Your task to perform on an android device: empty trash in the gmail app Image 0: 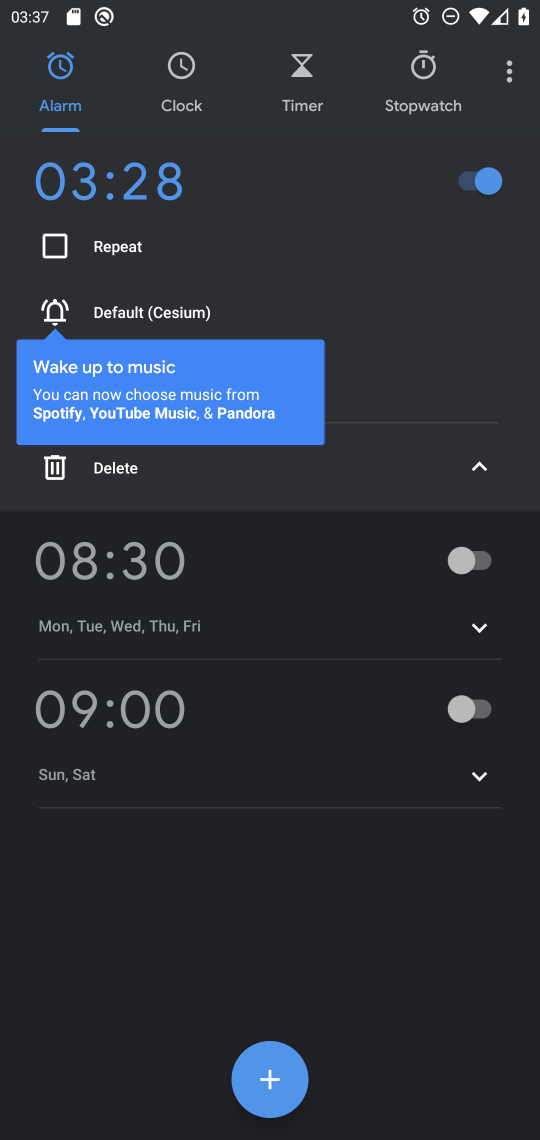
Step 0: press home button
Your task to perform on an android device: empty trash in the gmail app Image 1: 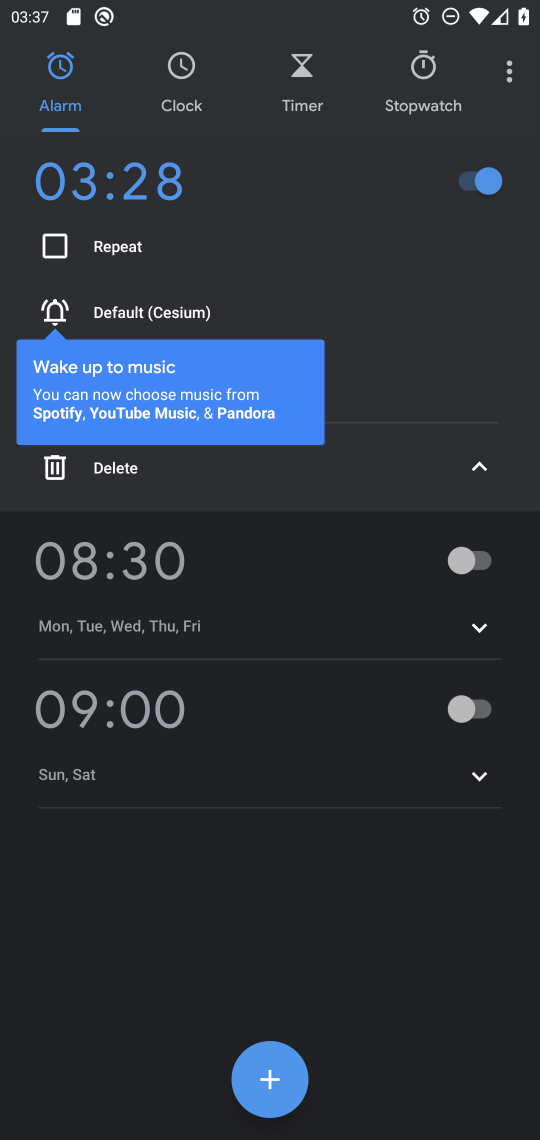
Step 1: press home button
Your task to perform on an android device: empty trash in the gmail app Image 2: 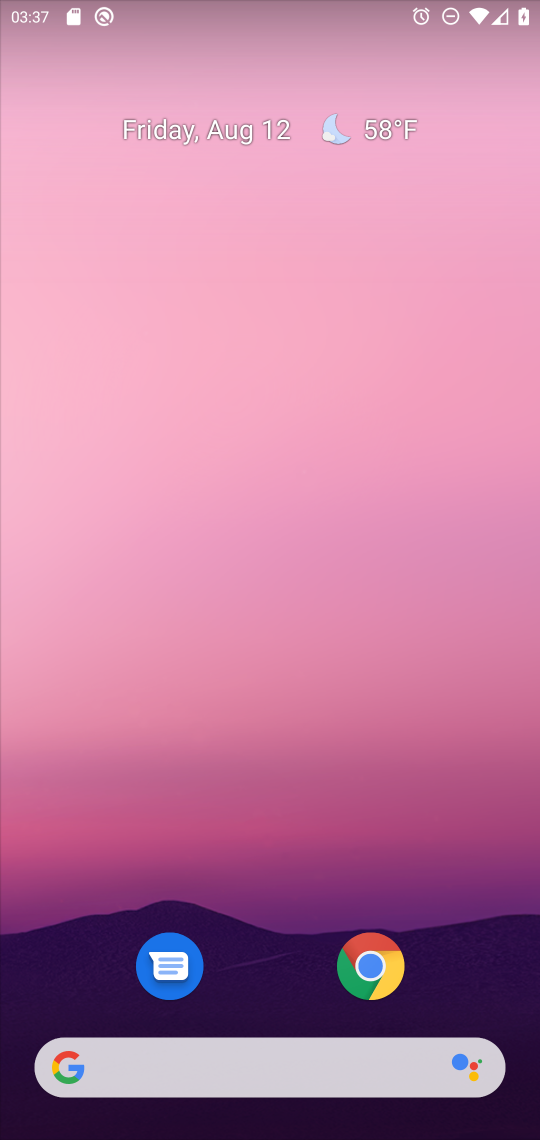
Step 2: drag from (257, 909) to (304, 58)
Your task to perform on an android device: empty trash in the gmail app Image 3: 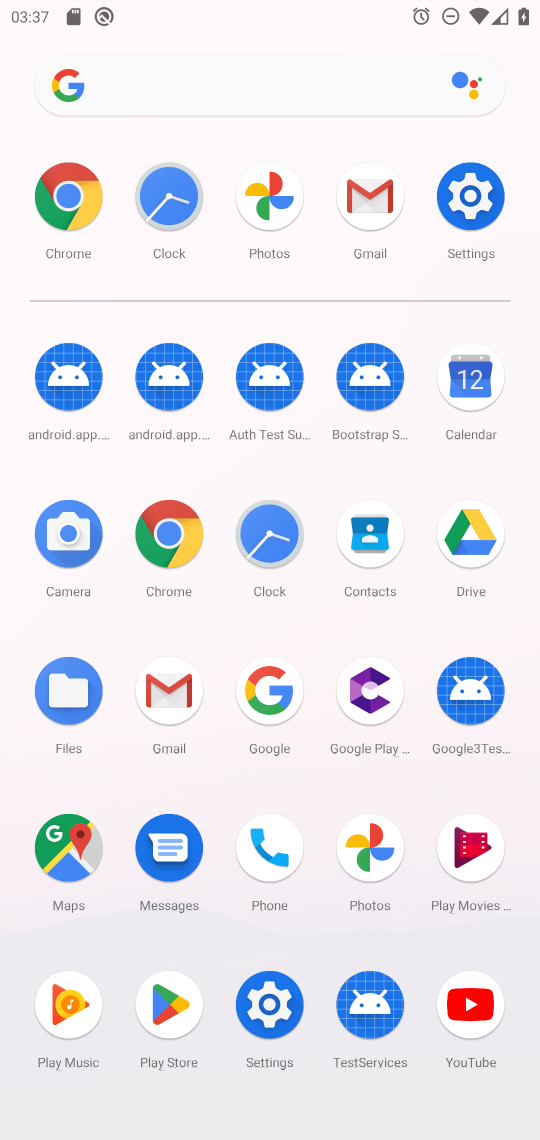
Step 3: click (182, 687)
Your task to perform on an android device: empty trash in the gmail app Image 4: 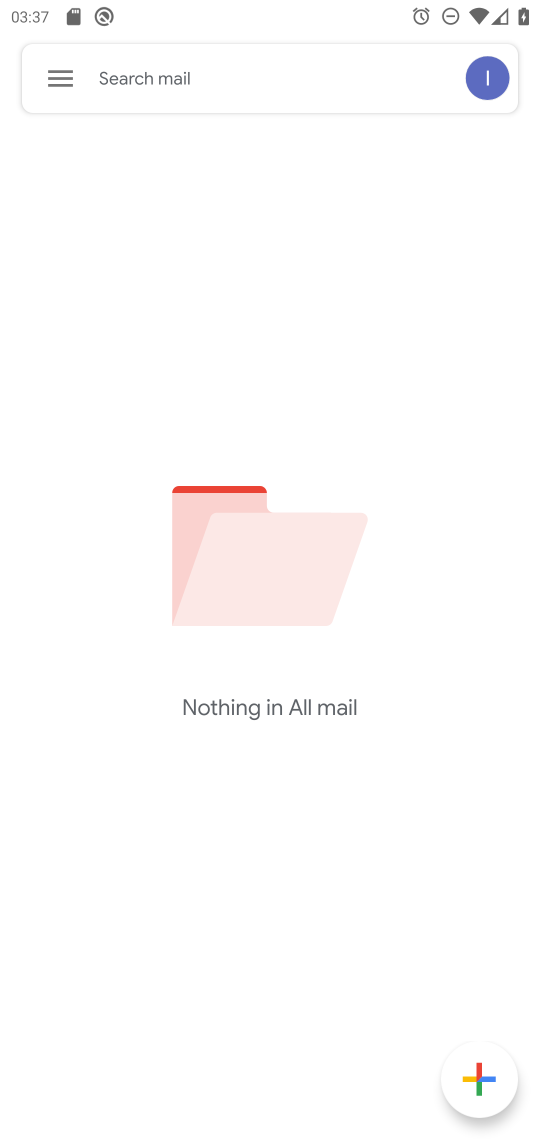
Step 4: click (61, 72)
Your task to perform on an android device: empty trash in the gmail app Image 5: 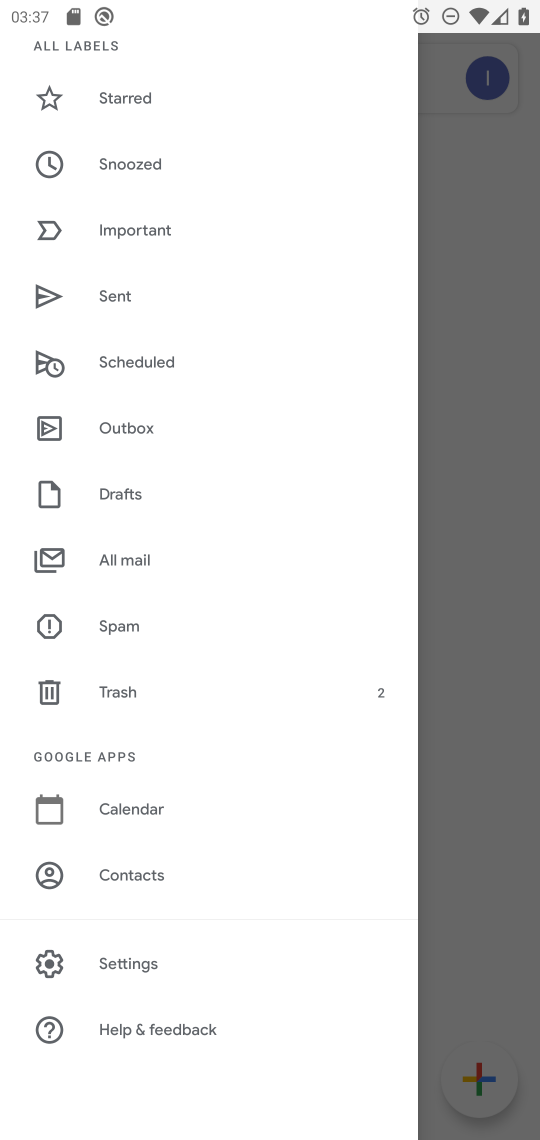
Step 5: click (116, 694)
Your task to perform on an android device: empty trash in the gmail app Image 6: 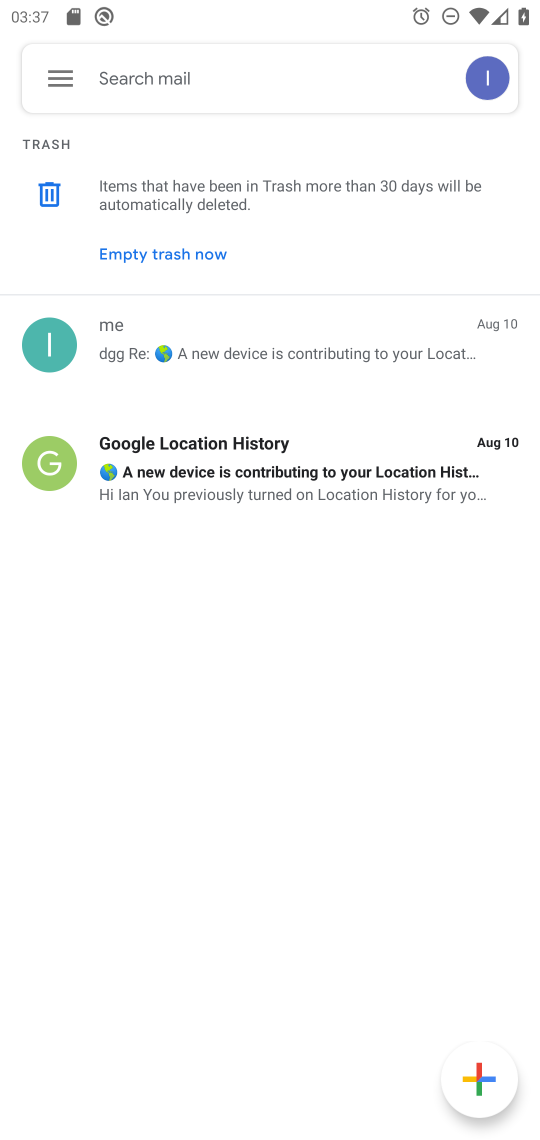
Step 6: click (124, 242)
Your task to perform on an android device: empty trash in the gmail app Image 7: 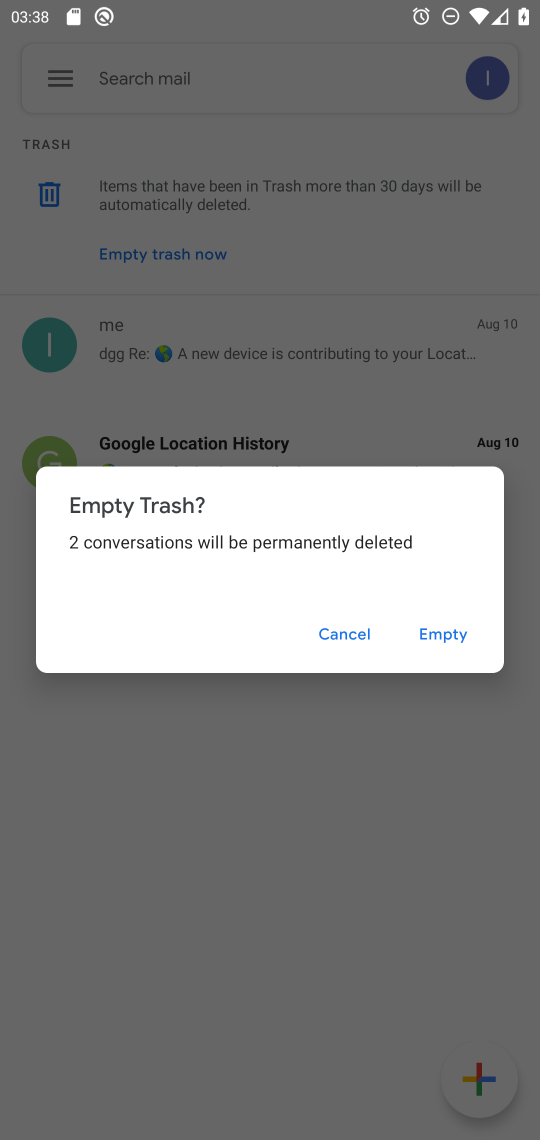
Step 7: click (435, 634)
Your task to perform on an android device: empty trash in the gmail app Image 8: 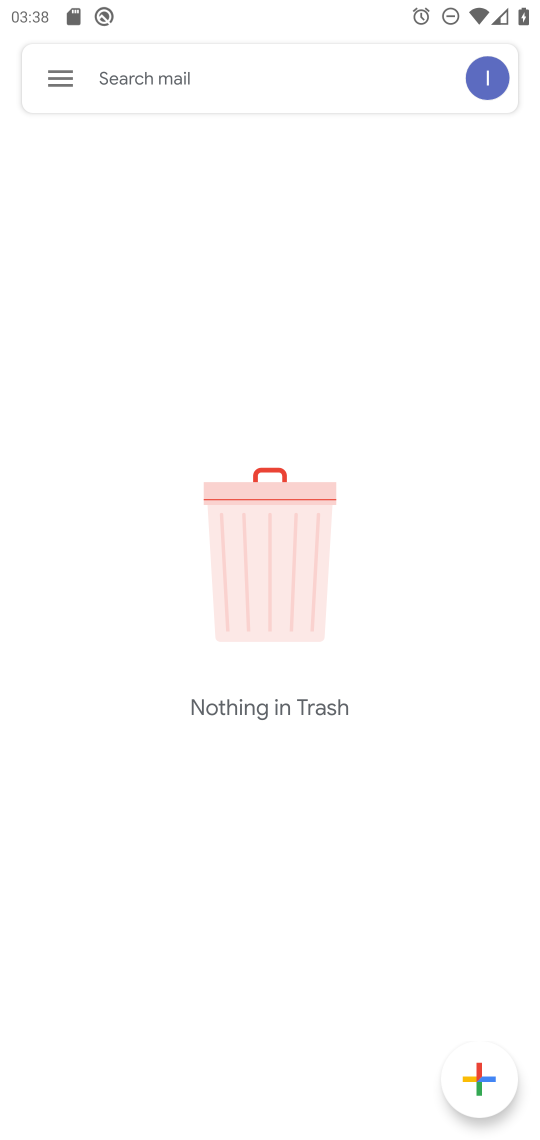
Step 8: task complete